Your task to perform on an android device: delete a single message in the gmail app Image 0: 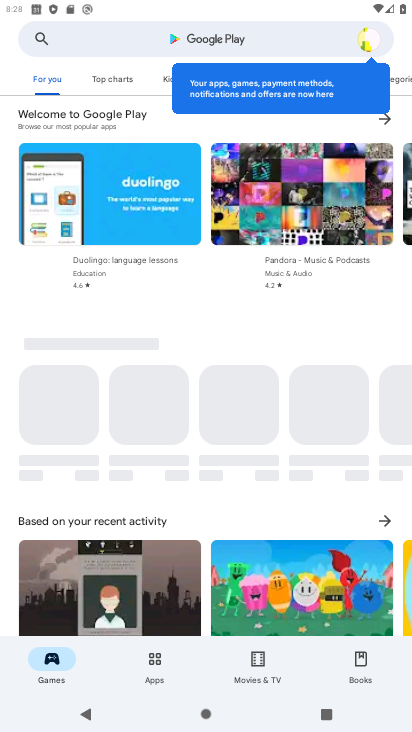
Step 0: press home button
Your task to perform on an android device: delete a single message in the gmail app Image 1: 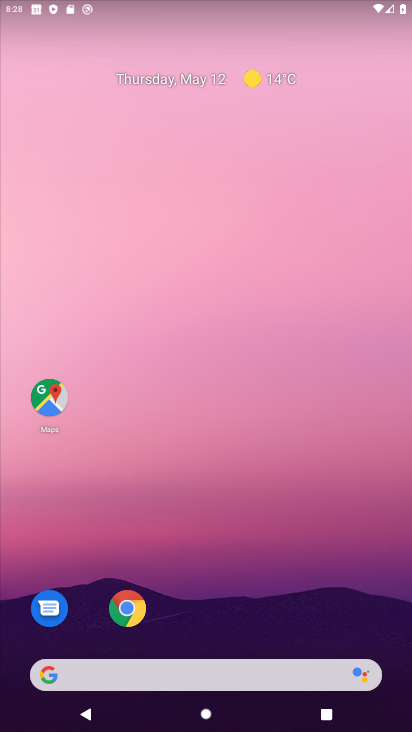
Step 1: drag from (196, 660) to (209, 254)
Your task to perform on an android device: delete a single message in the gmail app Image 2: 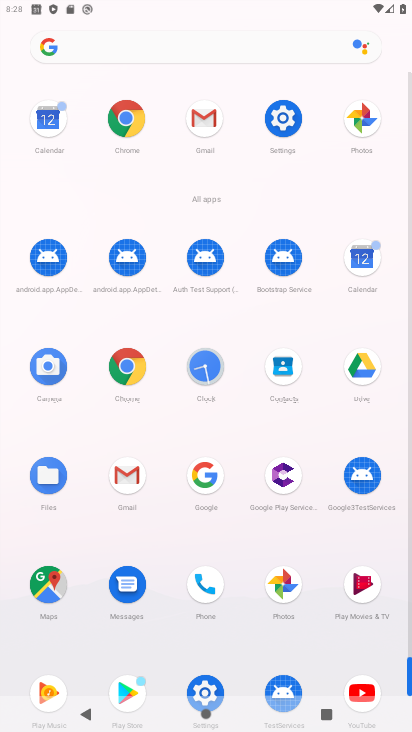
Step 2: click (198, 121)
Your task to perform on an android device: delete a single message in the gmail app Image 3: 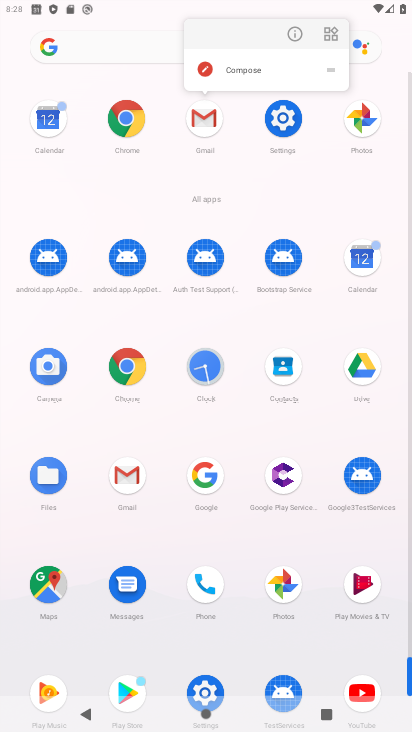
Step 3: click (198, 121)
Your task to perform on an android device: delete a single message in the gmail app Image 4: 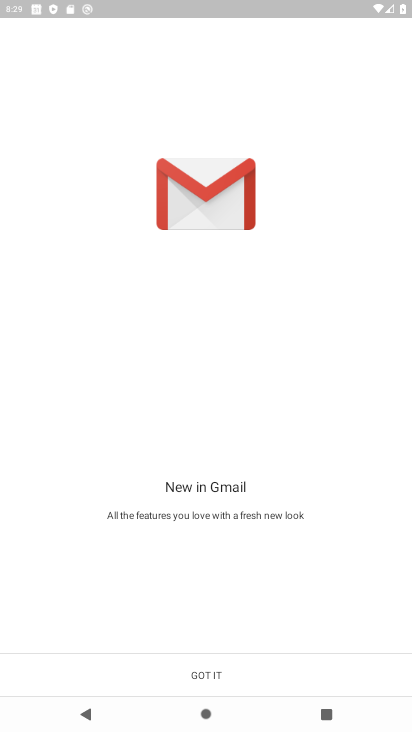
Step 4: click (199, 669)
Your task to perform on an android device: delete a single message in the gmail app Image 5: 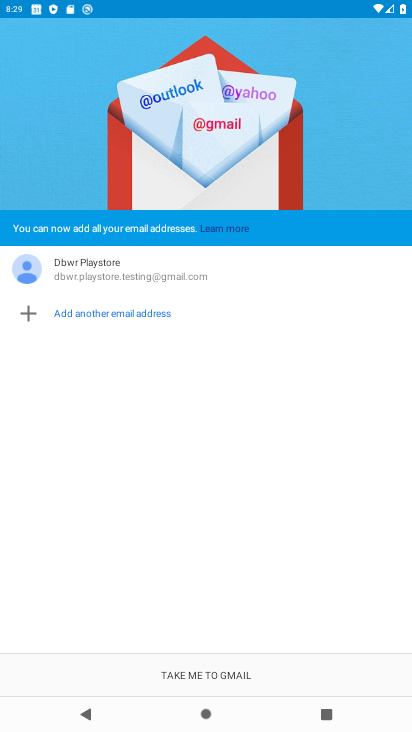
Step 5: click (204, 680)
Your task to perform on an android device: delete a single message in the gmail app Image 6: 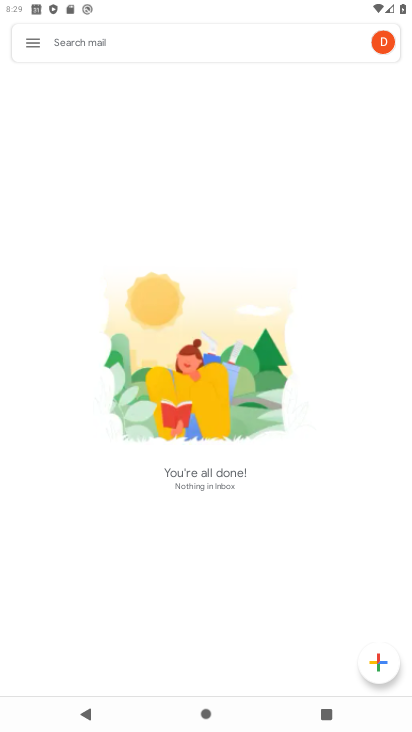
Step 6: click (29, 46)
Your task to perform on an android device: delete a single message in the gmail app Image 7: 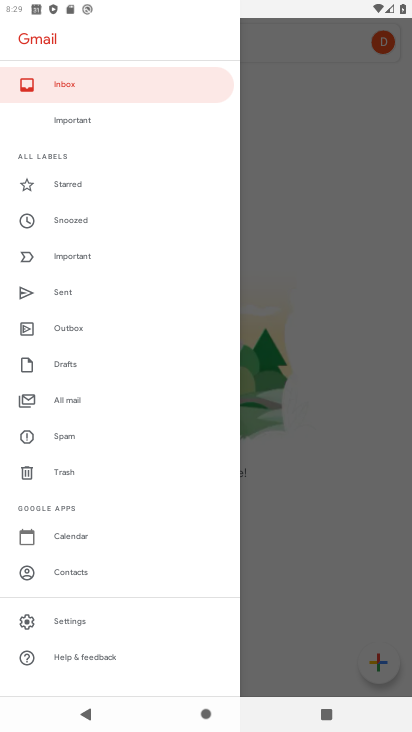
Step 7: click (65, 76)
Your task to perform on an android device: delete a single message in the gmail app Image 8: 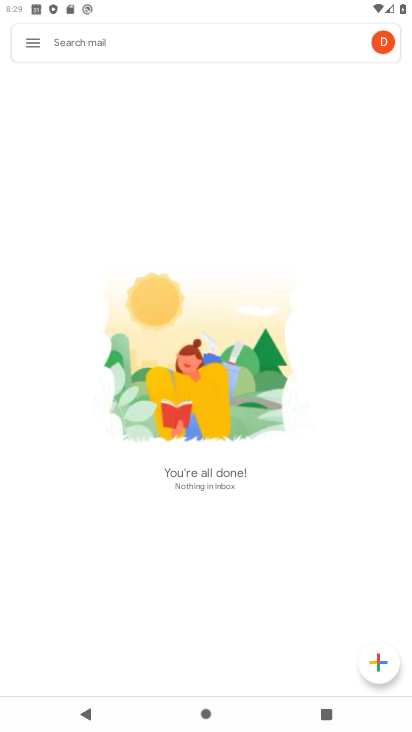
Step 8: task complete